Your task to perform on an android device: Open Google Maps Image 0: 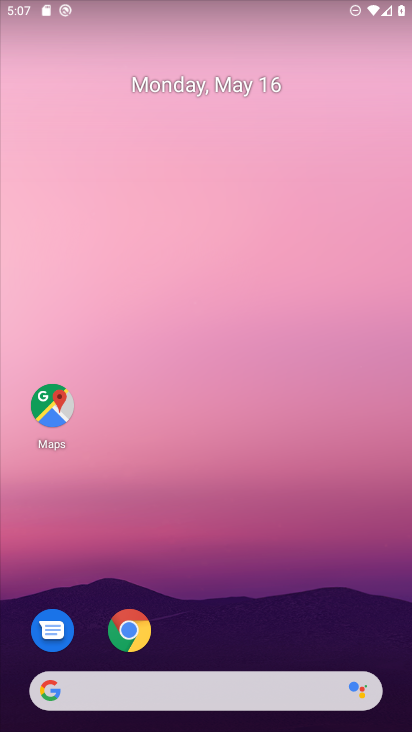
Step 0: click (54, 413)
Your task to perform on an android device: Open Google Maps Image 1: 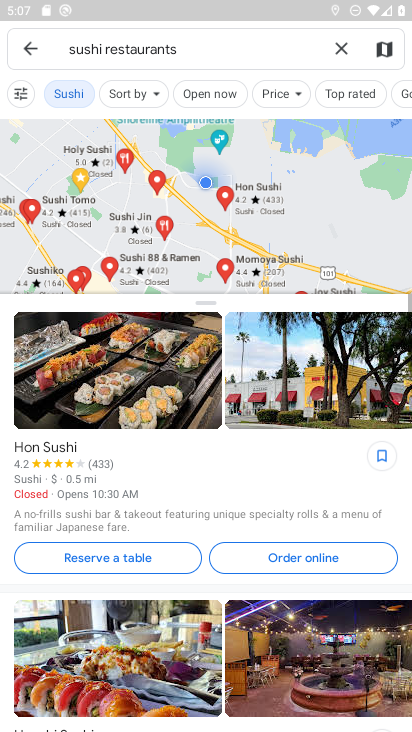
Step 1: task complete